Your task to perform on an android device: turn on data saver in the chrome app Image 0: 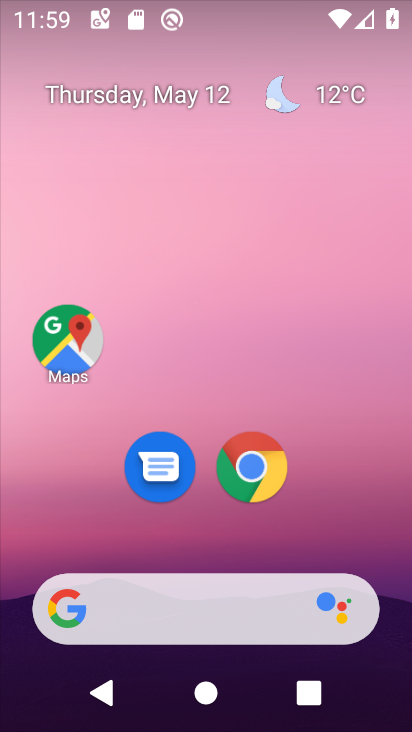
Step 0: click (253, 470)
Your task to perform on an android device: turn on data saver in the chrome app Image 1: 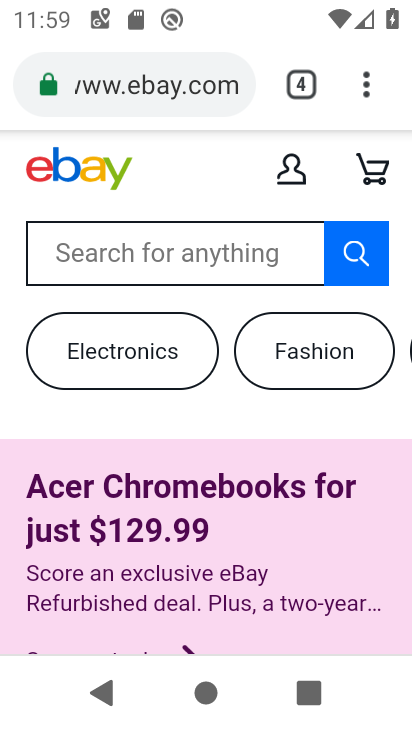
Step 1: click (362, 83)
Your task to perform on an android device: turn on data saver in the chrome app Image 2: 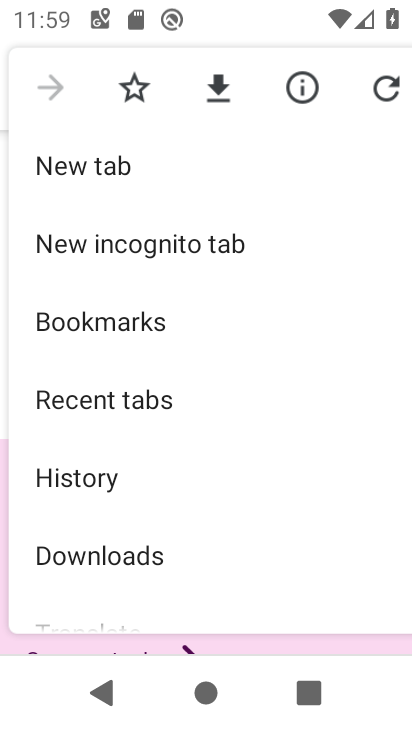
Step 2: drag from (189, 523) to (183, 197)
Your task to perform on an android device: turn on data saver in the chrome app Image 3: 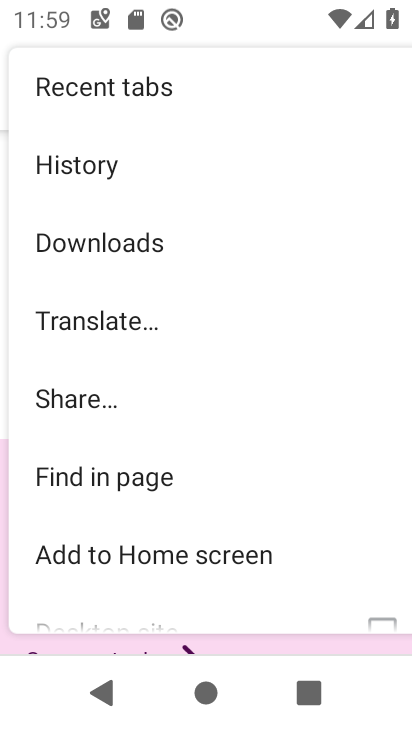
Step 3: drag from (182, 488) to (176, 139)
Your task to perform on an android device: turn on data saver in the chrome app Image 4: 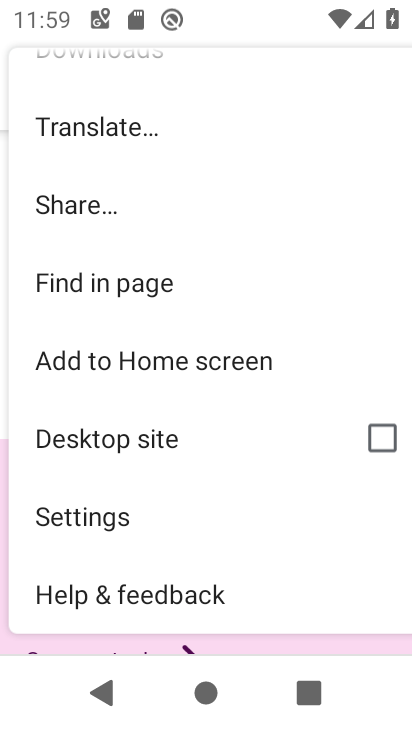
Step 4: click (132, 513)
Your task to perform on an android device: turn on data saver in the chrome app Image 5: 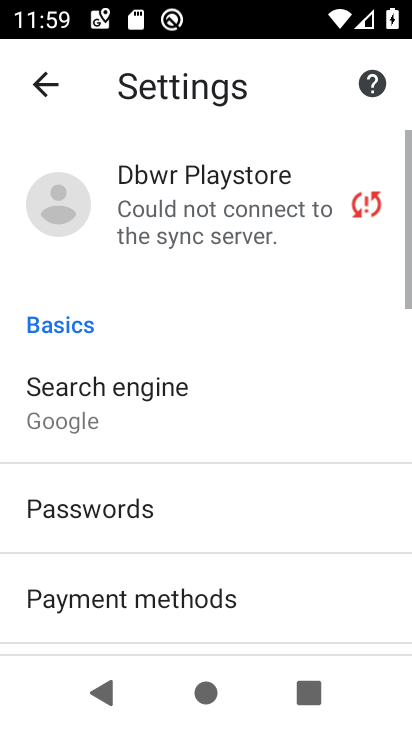
Step 5: drag from (180, 570) to (136, 181)
Your task to perform on an android device: turn on data saver in the chrome app Image 6: 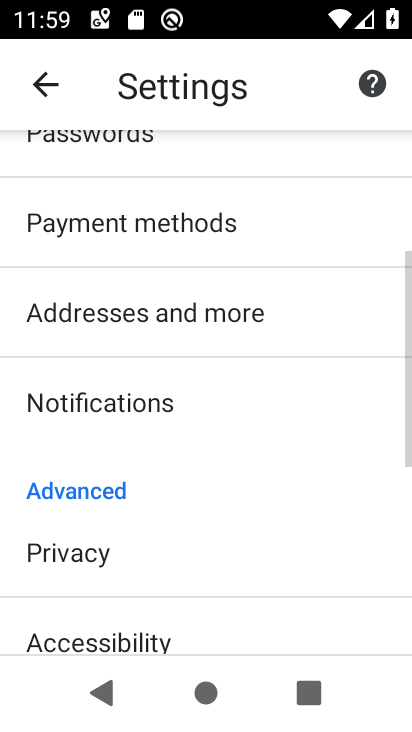
Step 6: drag from (136, 592) to (155, 253)
Your task to perform on an android device: turn on data saver in the chrome app Image 7: 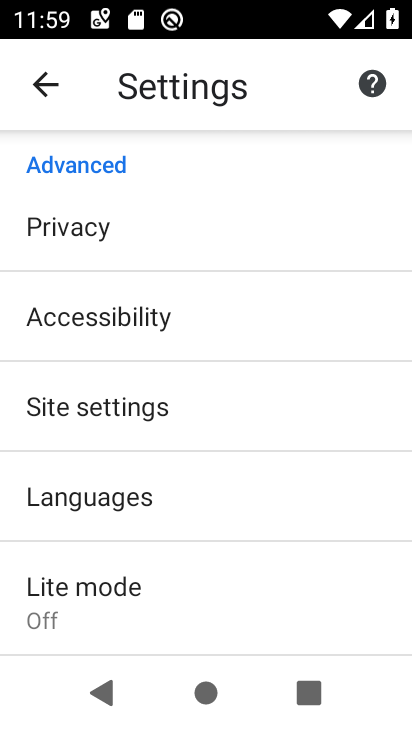
Step 7: drag from (149, 572) to (153, 228)
Your task to perform on an android device: turn on data saver in the chrome app Image 8: 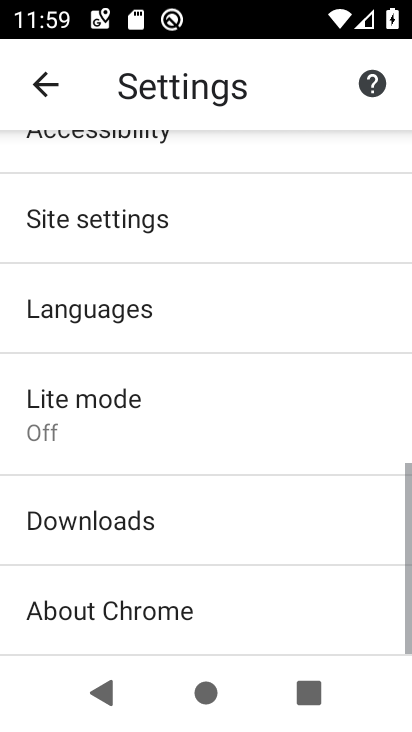
Step 8: drag from (130, 523) to (130, 268)
Your task to perform on an android device: turn on data saver in the chrome app Image 9: 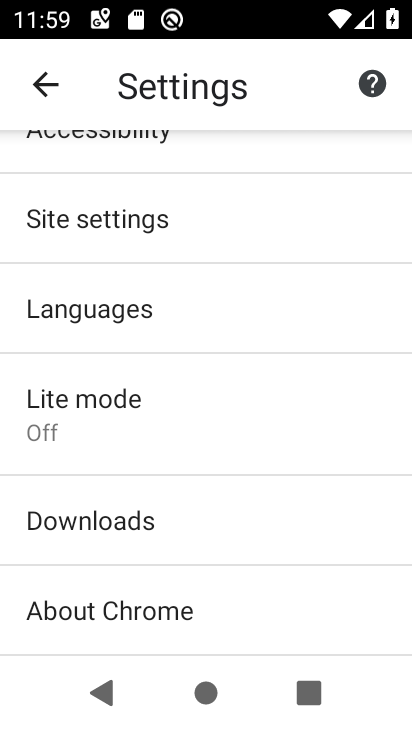
Step 9: drag from (193, 539) to (153, 379)
Your task to perform on an android device: turn on data saver in the chrome app Image 10: 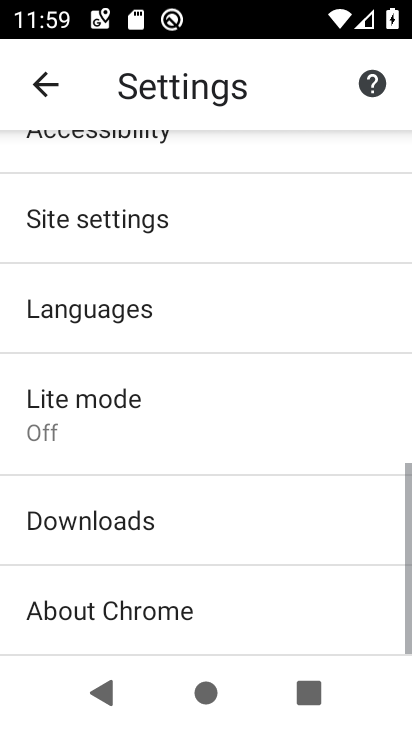
Step 10: click (137, 448)
Your task to perform on an android device: turn on data saver in the chrome app Image 11: 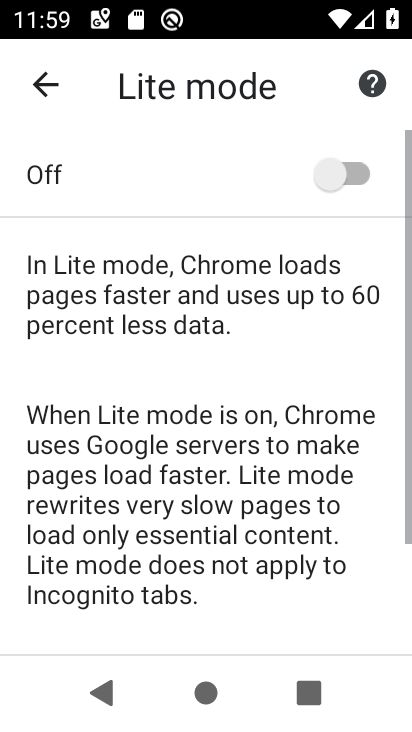
Step 11: click (350, 160)
Your task to perform on an android device: turn on data saver in the chrome app Image 12: 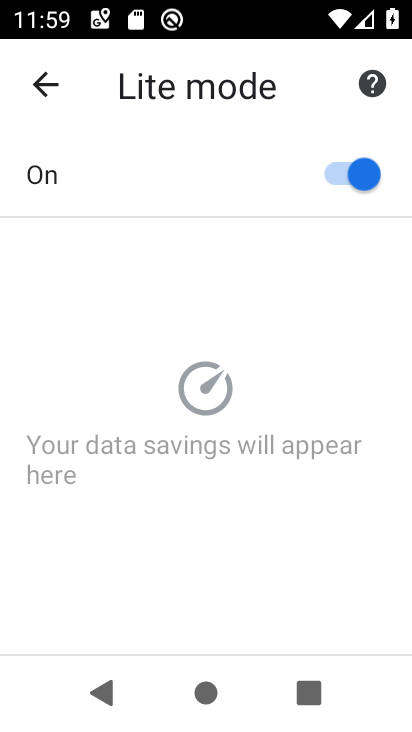
Step 12: task complete